Your task to perform on an android device: open a bookmark in the chrome app Image 0: 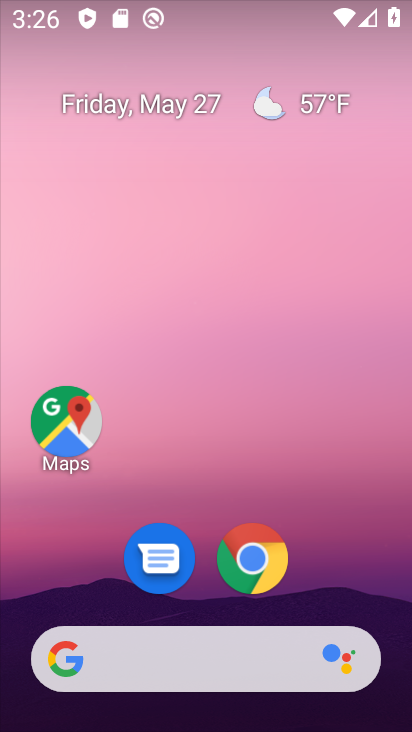
Step 0: click (244, 594)
Your task to perform on an android device: open a bookmark in the chrome app Image 1: 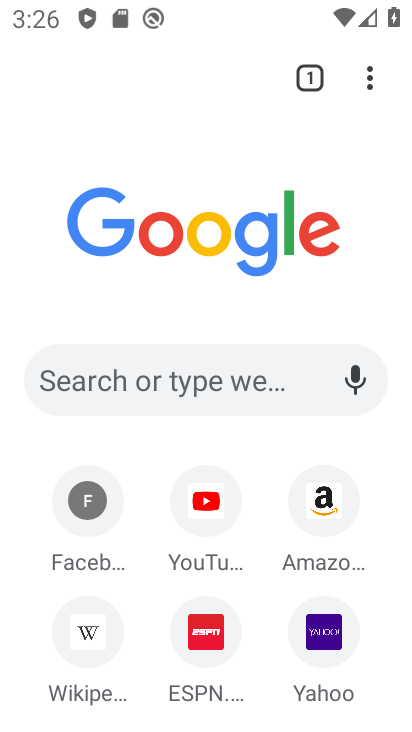
Step 1: click (377, 94)
Your task to perform on an android device: open a bookmark in the chrome app Image 2: 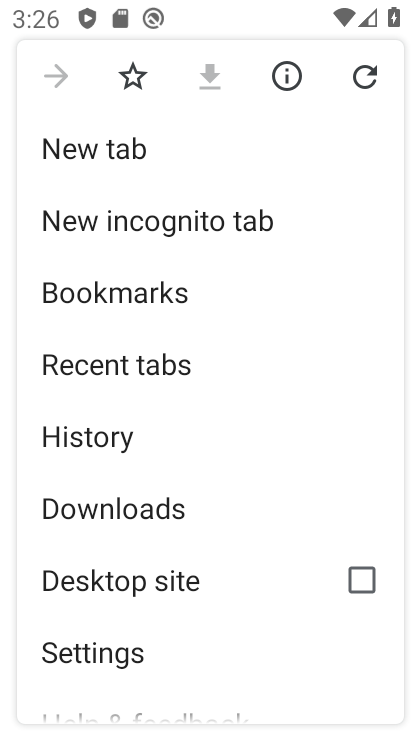
Step 2: click (267, 311)
Your task to perform on an android device: open a bookmark in the chrome app Image 3: 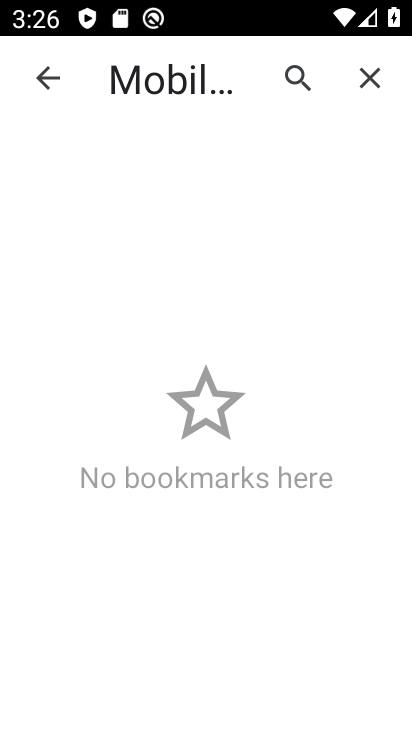
Step 3: task complete